Your task to perform on an android device: Go to Reddit.com Image 0: 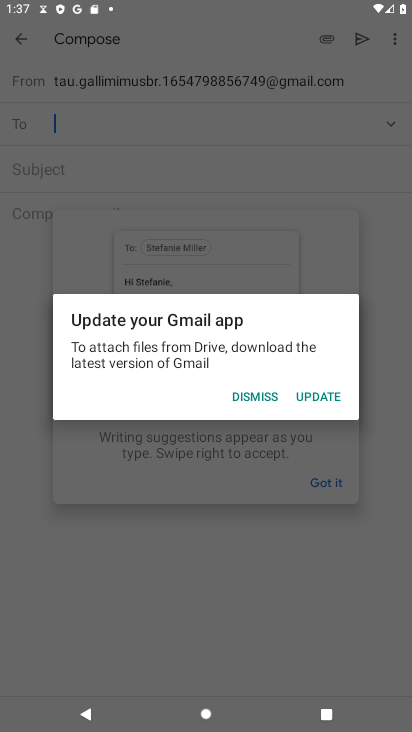
Step 0: press home button
Your task to perform on an android device: Go to Reddit.com Image 1: 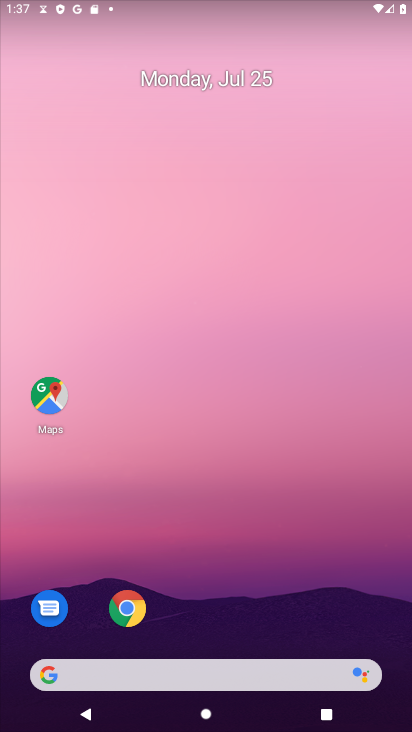
Step 1: click (127, 609)
Your task to perform on an android device: Go to Reddit.com Image 2: 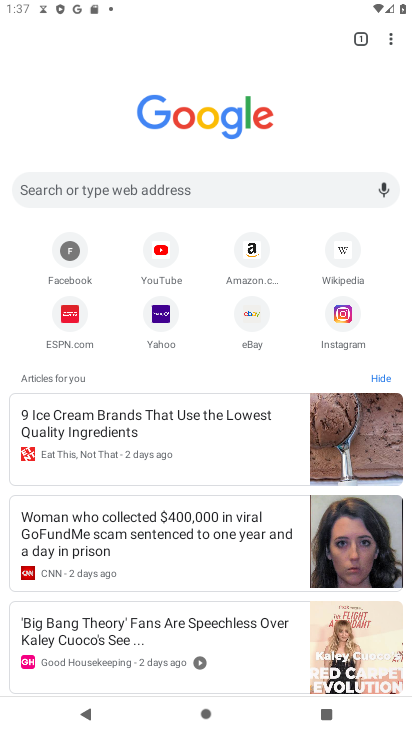
Step 2: click (212, 185)
Your task to perform on an android device: Go to Reddit.com Image 3: 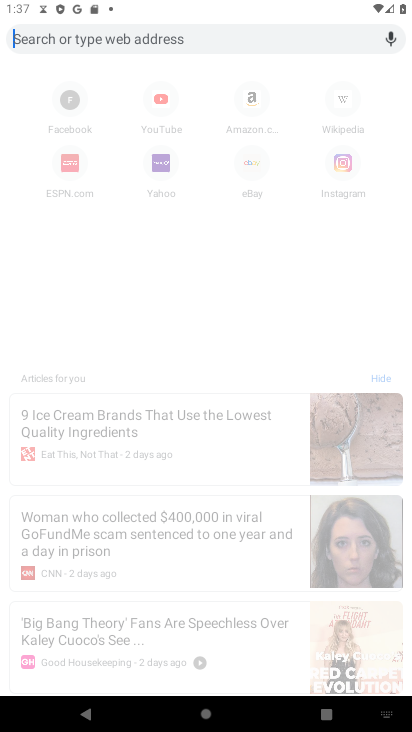
Step 3: type "R"
Your task to perform on an android device: Go to Reddit.com Image 4: 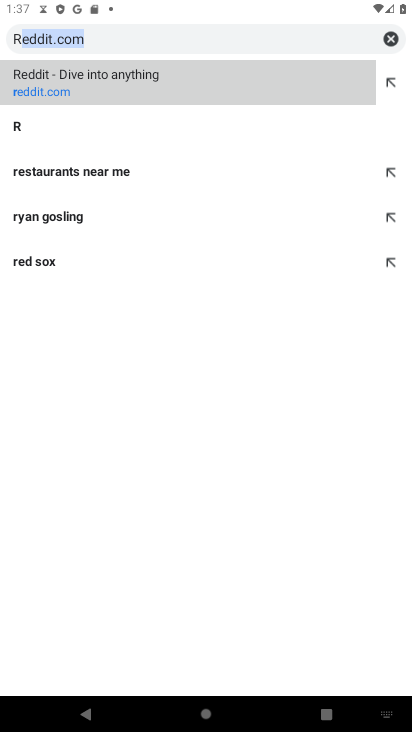
Step 4: click (55, 92)
Your task to perform on an android device: Go to Reddit.com Image 5: 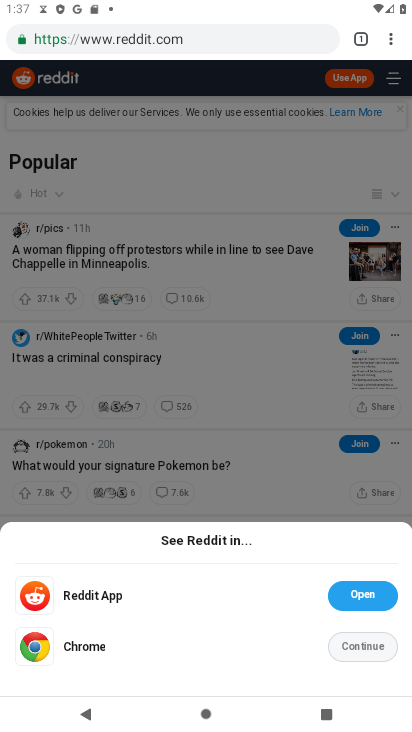
Step 5: click (354, 641)
Your task to perform on an android device: Go to Reddit.com Image 6: 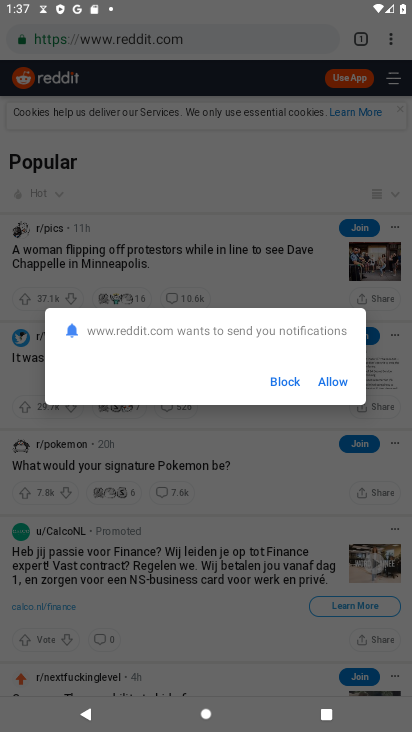
Step 6: click (342, 377)
Your task to perform on an android device: Go to Reddit.com Image 7: 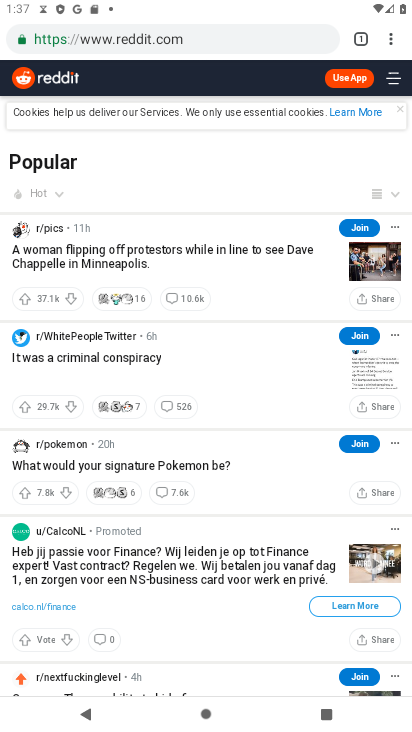
Step 7: task complete